Your task to perform on an android device: turn on translation in the chrome app Image 0: 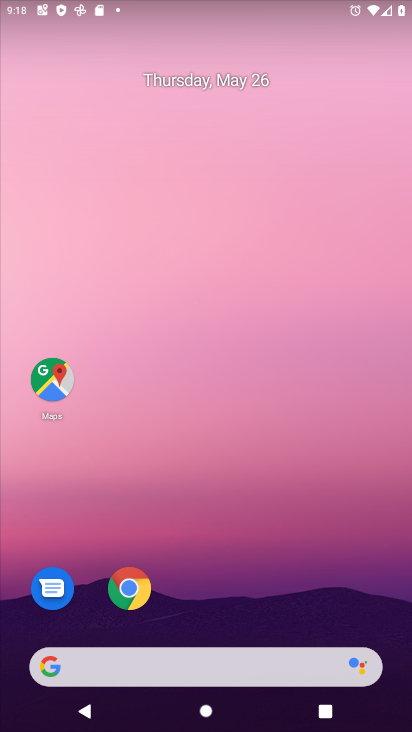
Step 0: drag from (392, 613) to (173, 18)
Your task to perform on an android device: turn on translation in the chrome app Image 1: 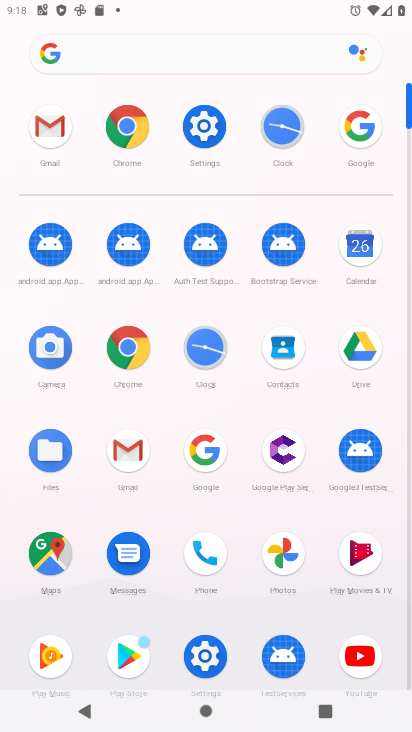
Step 1: click (131, 139)
Your task to perform on an android device: turn on translation in the chrome app Image 2: 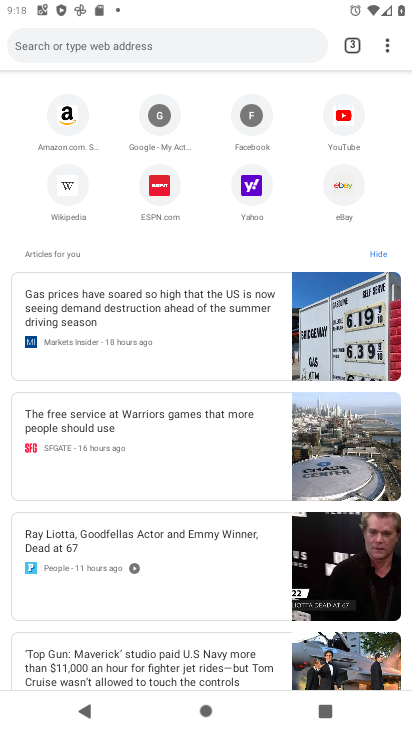
Step 2: click (385, 49)
Your task to perform on an android device: turn on translation in the chrome app Image 3: 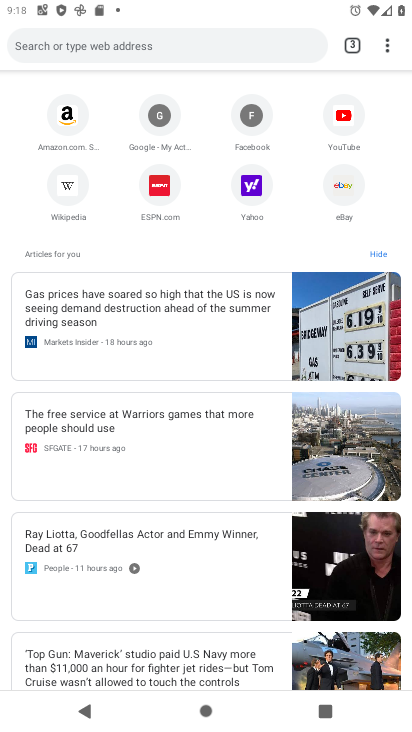
Step 3: click (389, 40)
Your task to perform on an android device: turn on translation in the chrome app Image 4: 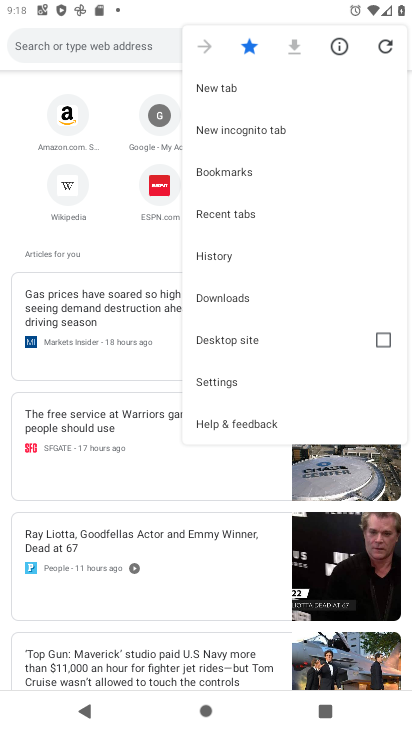
Step 4: click (245, 381)
Your task to perform on an android device: turn on translation in the chrome app Image 5: 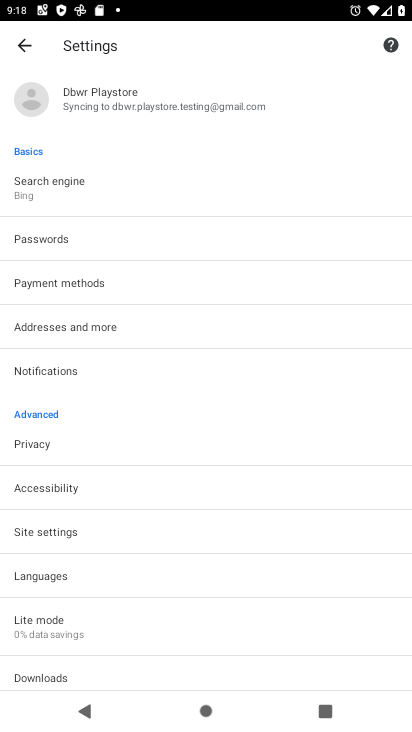
Step 5: click (72, 584)
Your task to perform on an android device: turn on translation in the chrome app Image 6: 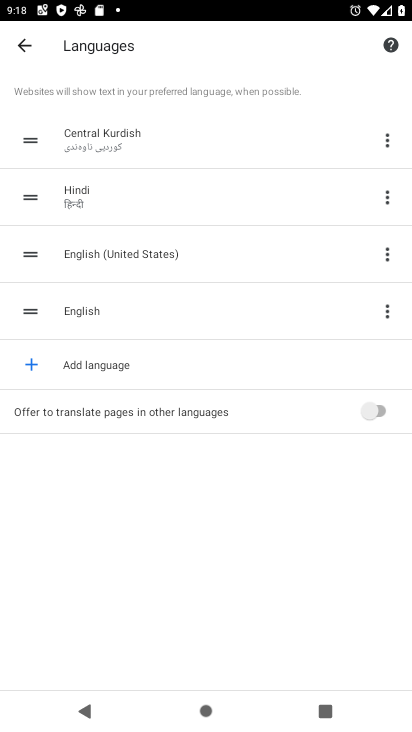
Step 6: click (337, 413)
Your task to perform on an android device: turn on translation in the chrome app Image 7: 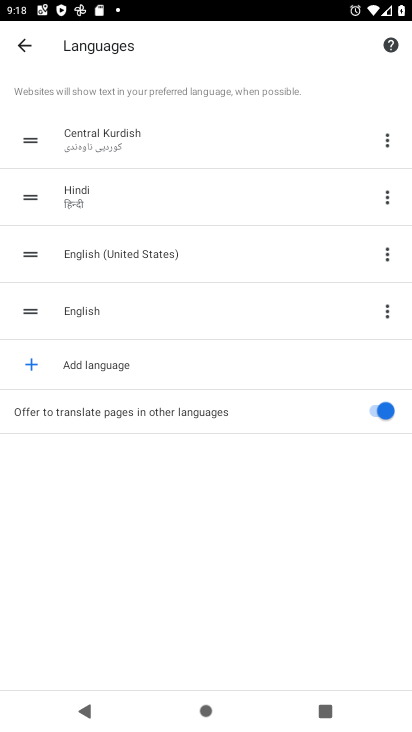
Step 7: task complete